Your task to perform on an android device: install app "Reddit" Image 0: 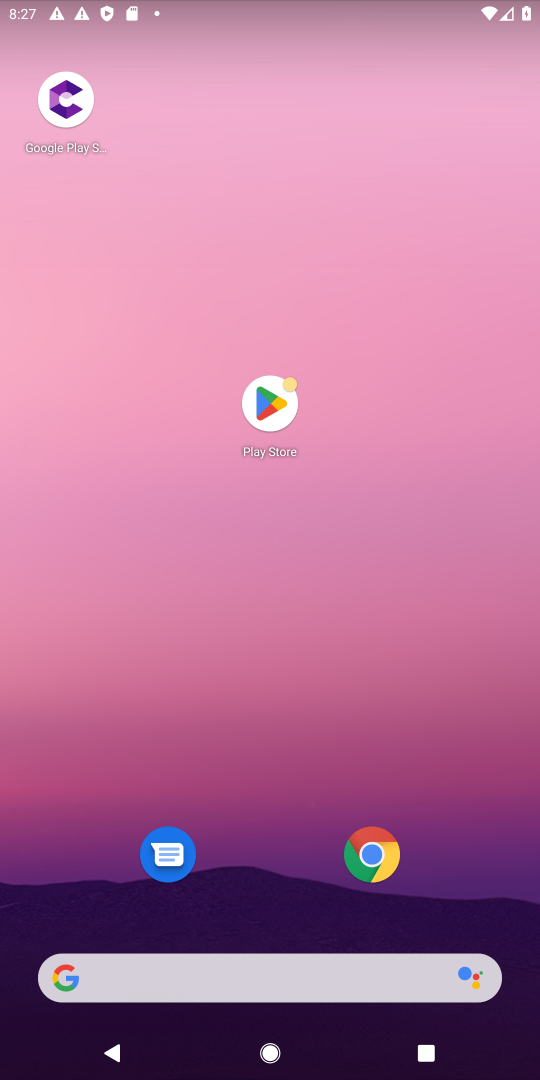
Step 0: click (266, 403)
Your task to perform on an android device: install app "Reddit" Image 1: 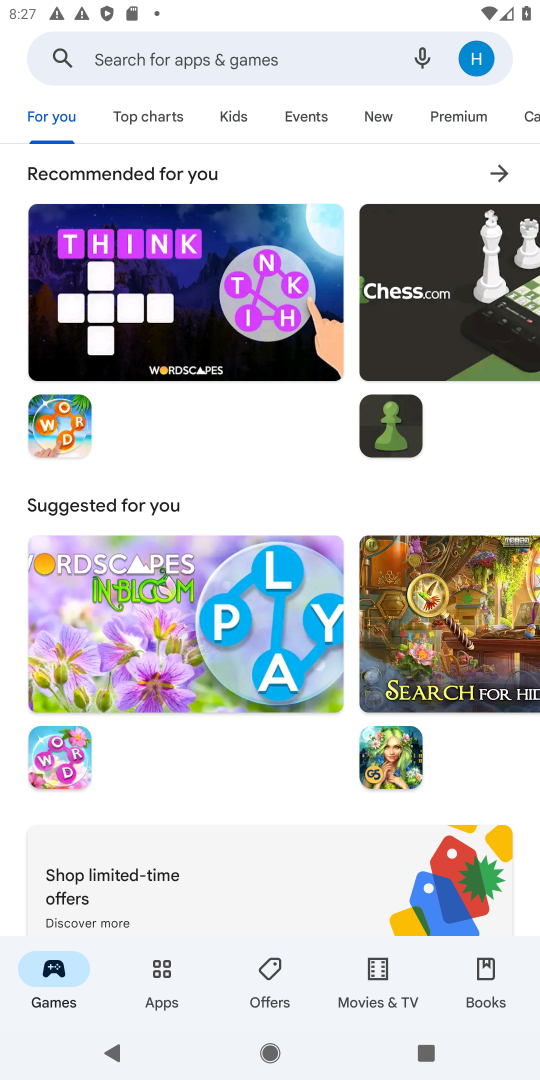
Step 1: click (264, 65)
Your task to perform on an android device: install app "Reddit" Image 2: 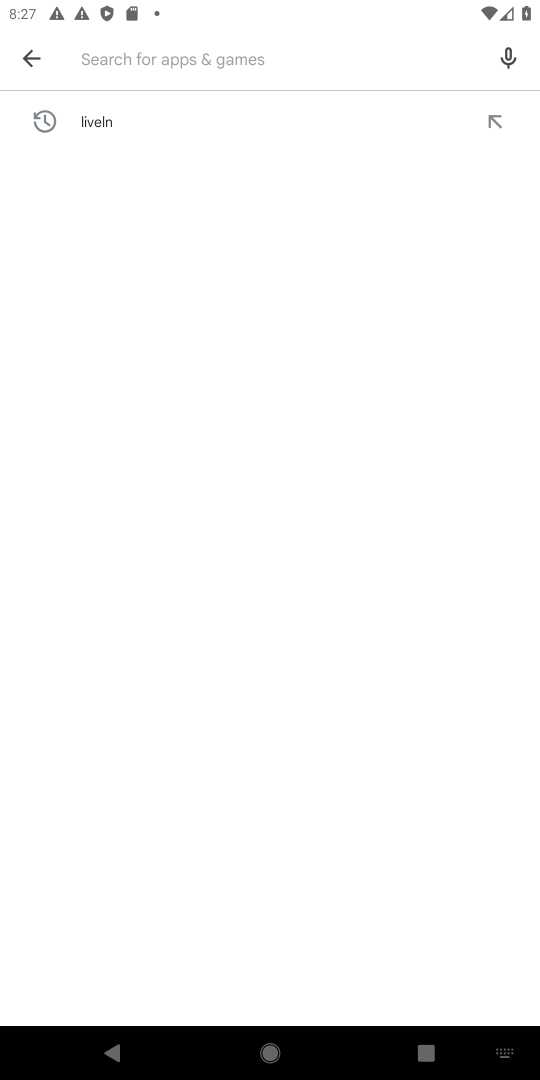
Step 2: type "reddit"
Your task to perform on an android device: install app "Reddit" Image 3: 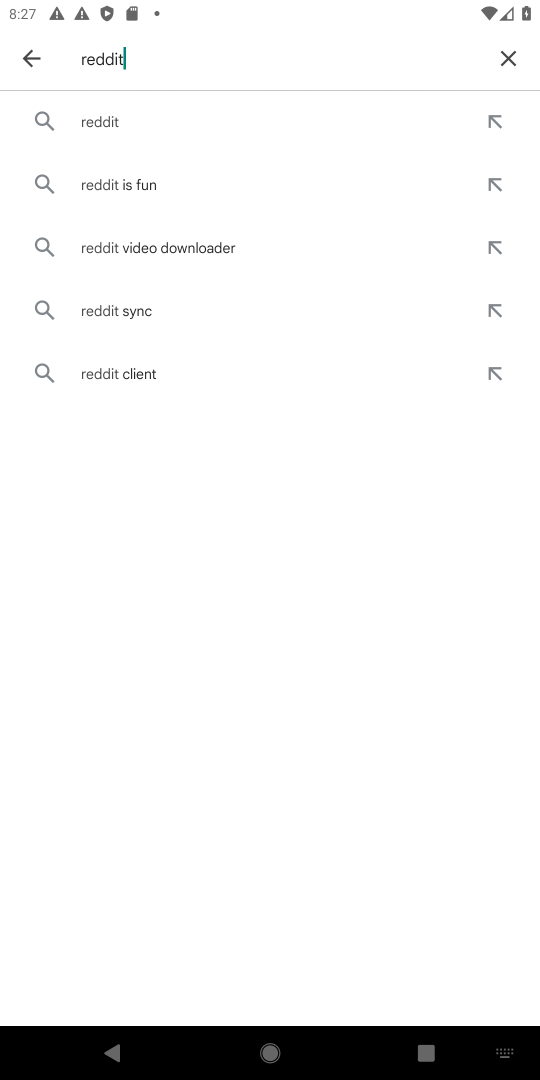
Step 3: click (129, 115)
Your task to perform on an android device: install app "Reddit" Image 4: 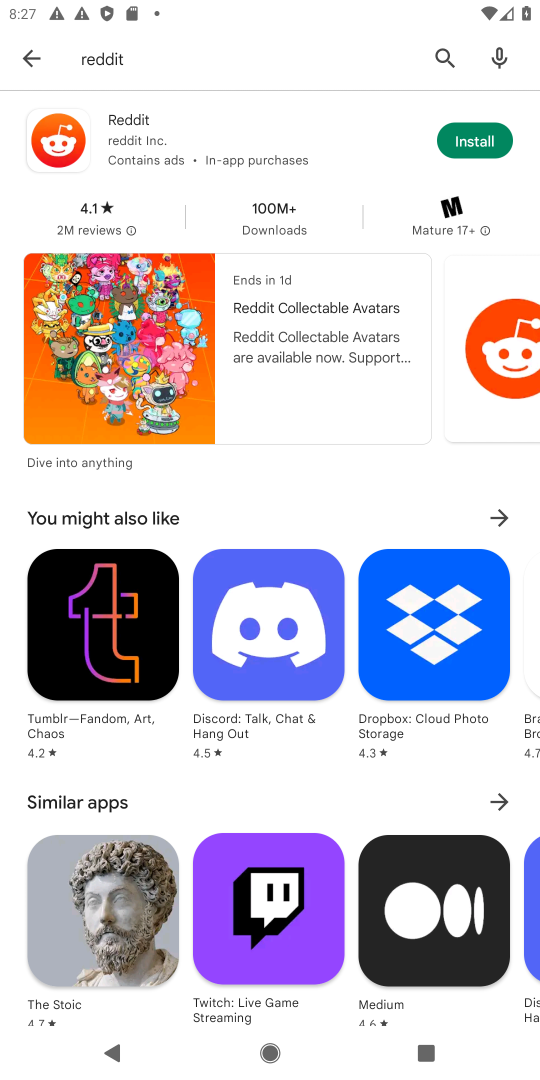
Step 4: click (498, 140)
Your task to perform on an android device: install app "Reddit" Image 5: 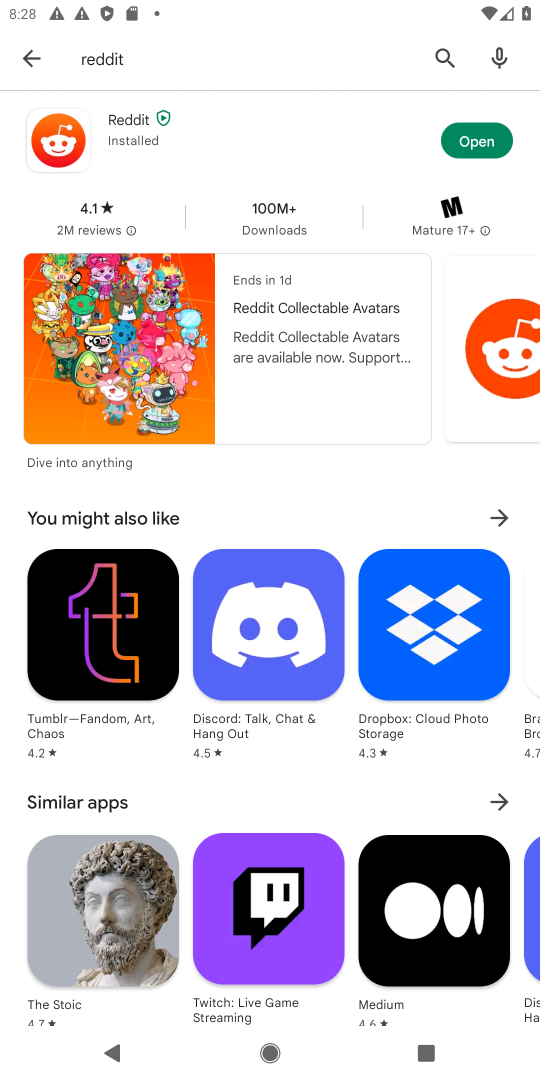
Step 5: task complete